Your task to perform on an android device: Open maps Image 0: 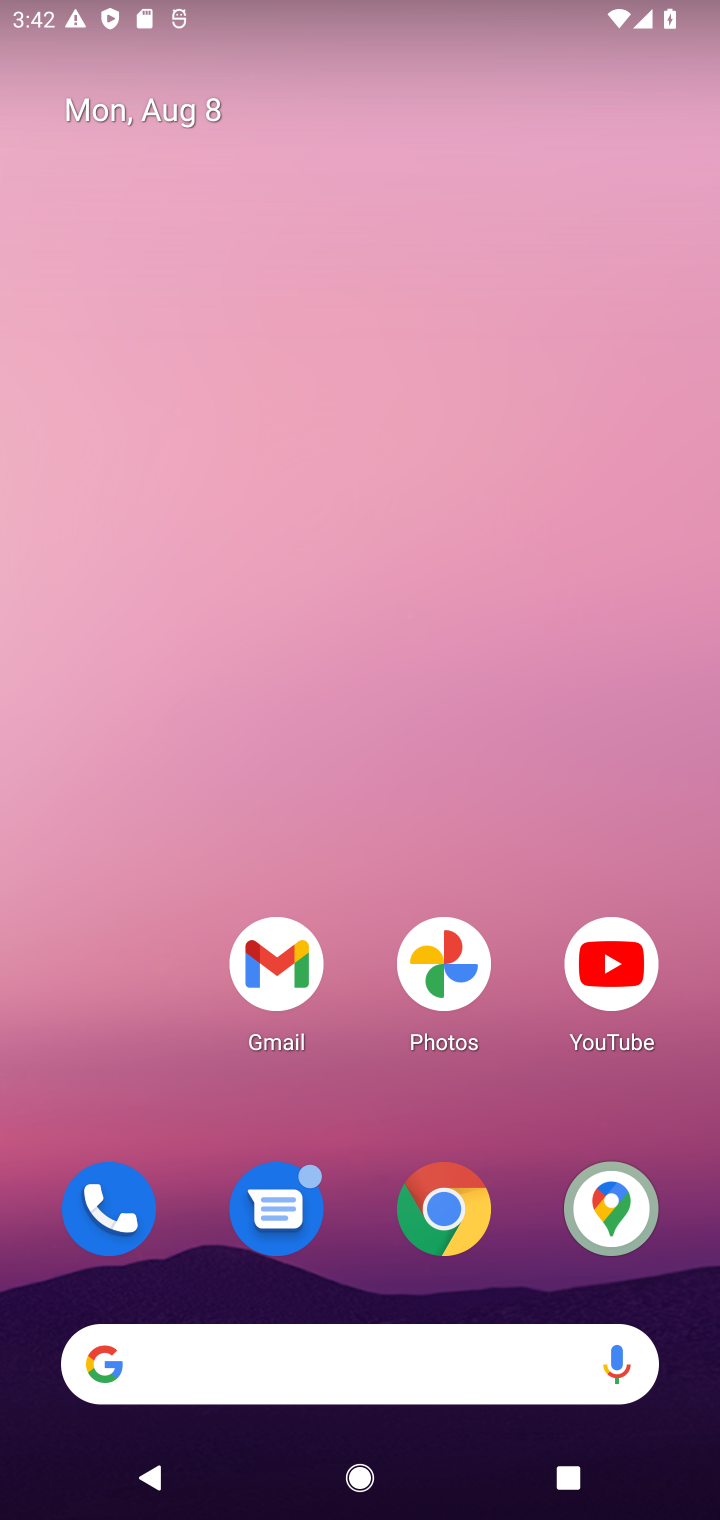
Step 0: click (652, 1218)
Your task to perform on an android device: Open maps Image 1: 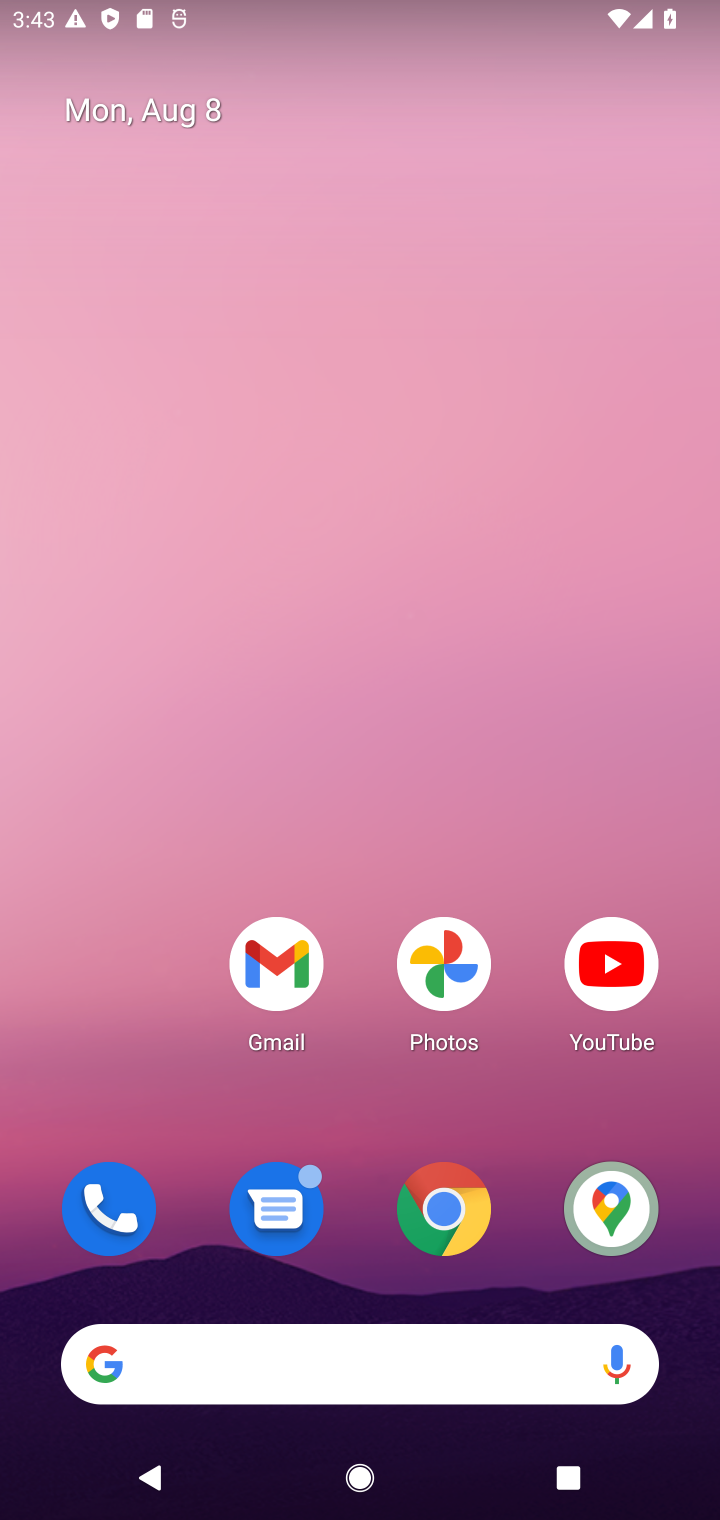
Step 1: click (601, 1203)
Your task to perform on an android device: Open maps Image 2: 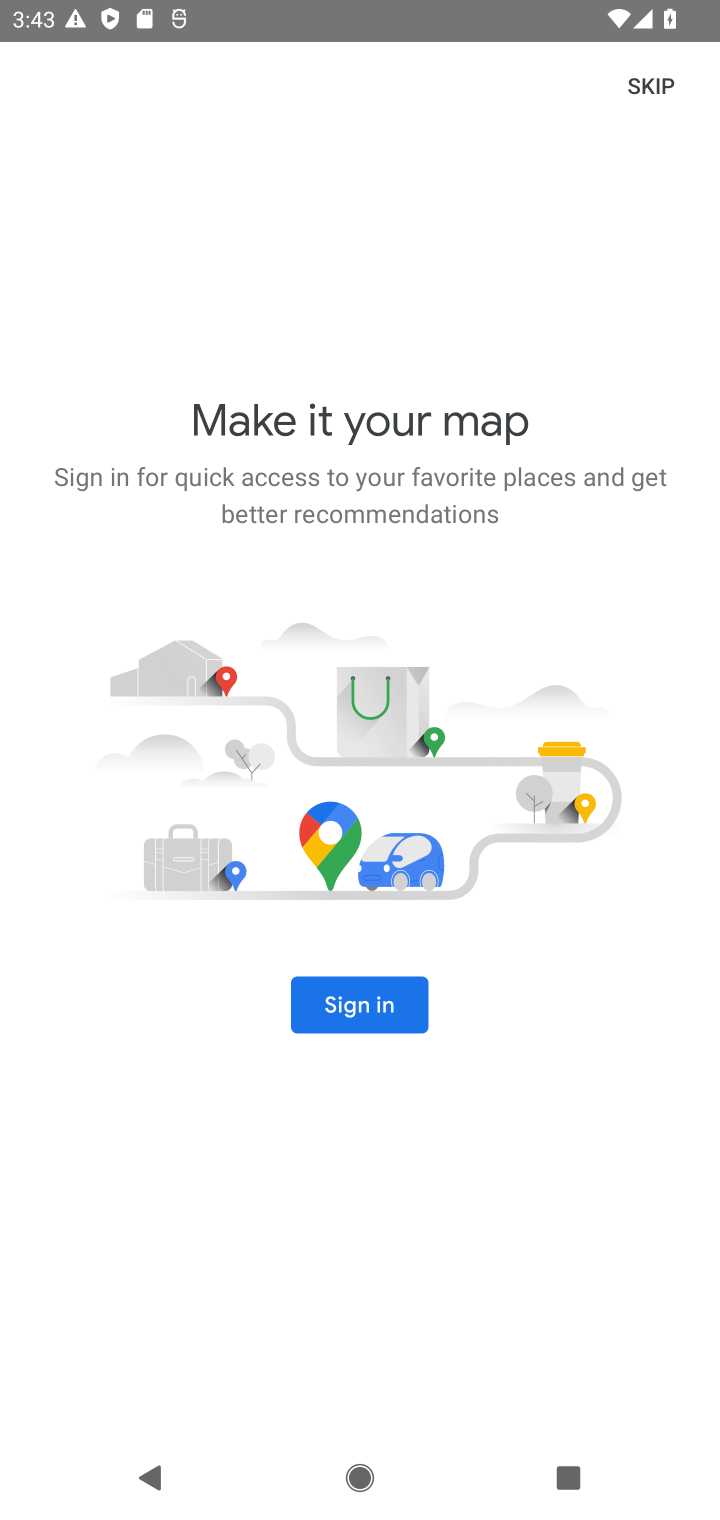
Step 2: task complete